Your task to perform on an android device: see sites visited before in the chrome app Image 0: 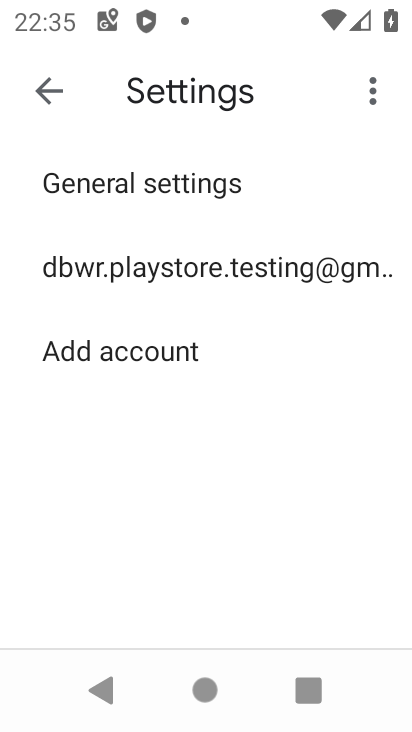
Step 0: press home button
Your task to perform on an android device: see sites visited before in the chrome app Image 1: 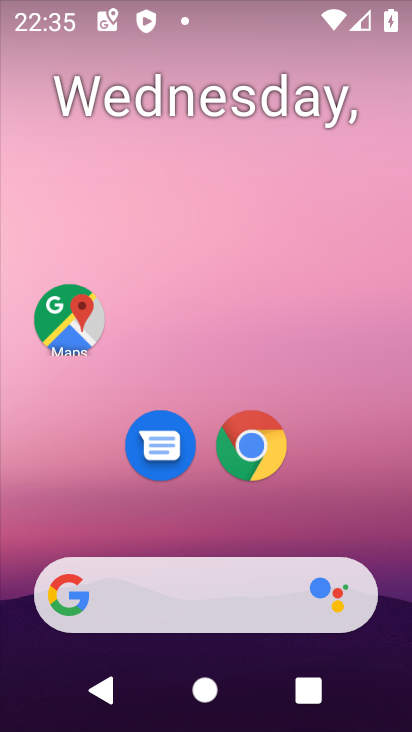
Step 1: click (251, 437)
Your task to perform on an android device: see sites visited before in the chrome app Image 2: 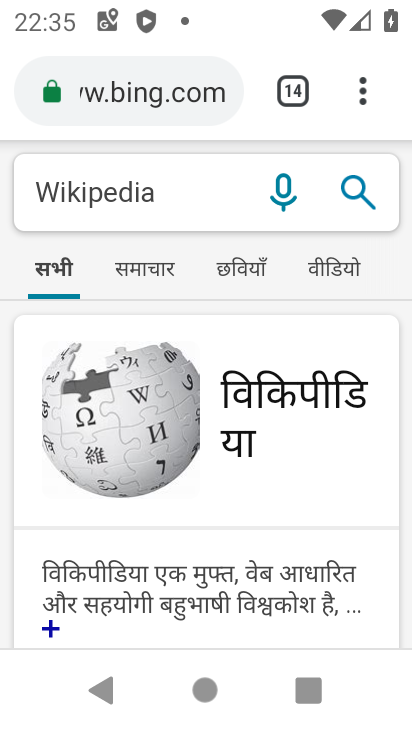
Step 2: click (353, 88)
Your task to perform on an android device: see sites visited before in the chrome app Image 3: 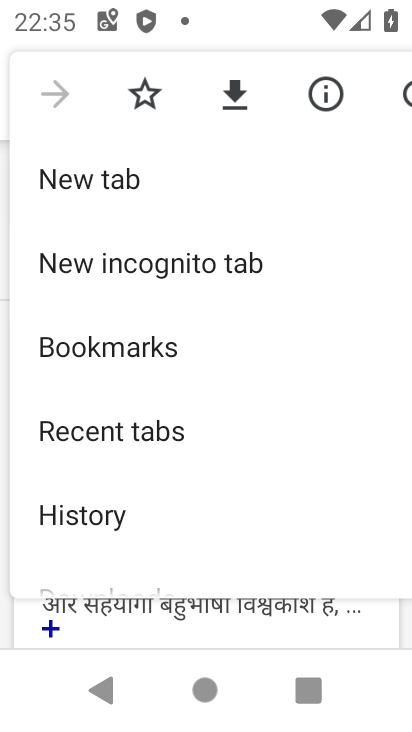
Step 3: click (122, 516)
Your task to perform on an android device: see sites visited before in the chrome app Image 4: 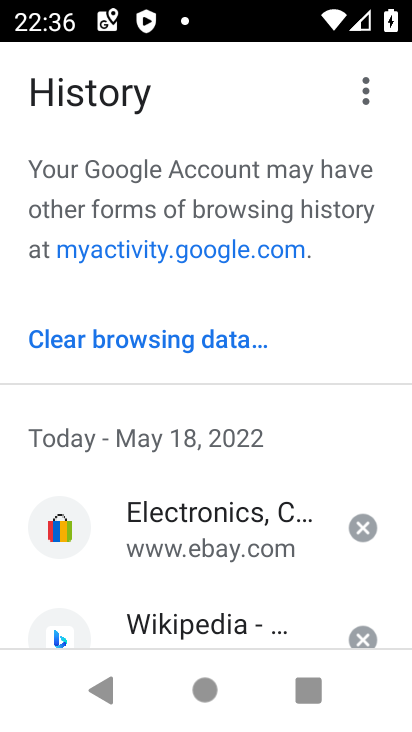
Step 4: task complete